Your task to perform on an android device: Search for vegetarian restaurants on Maps Image 0: 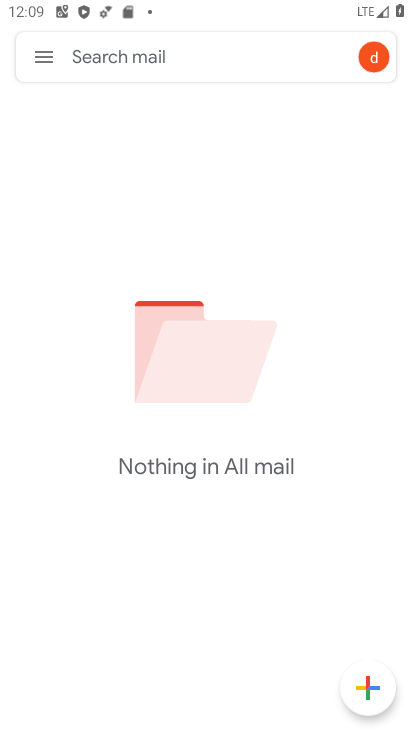
Step 0: press home button
Your task to perform on an android device: Search for vegetarian restaurants on Maps Image 1: 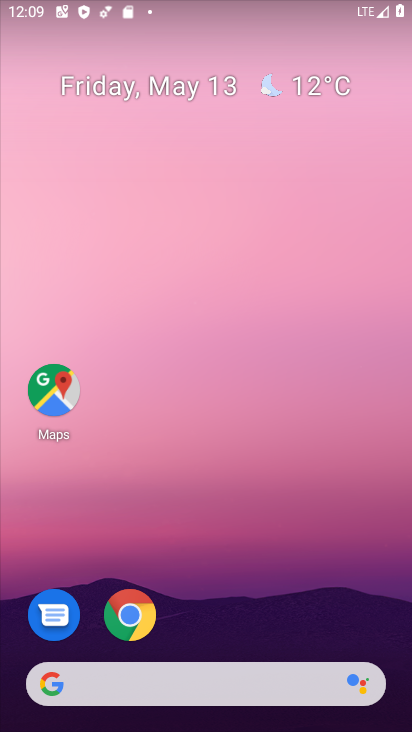
Step 1: click (78, 396)
Your task to perform on an android device: Search for vegetarian restaurants on Maps Image 2: 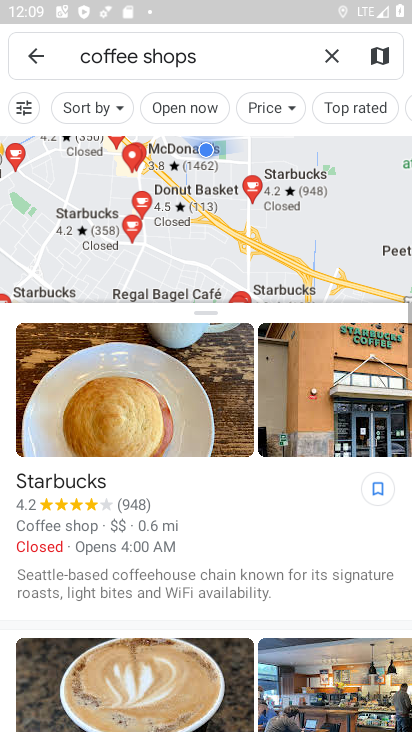
Step 2: click (325, 60)
Your task to perform on an android device: Search for vegetarian restaurants on Maps Image 3: 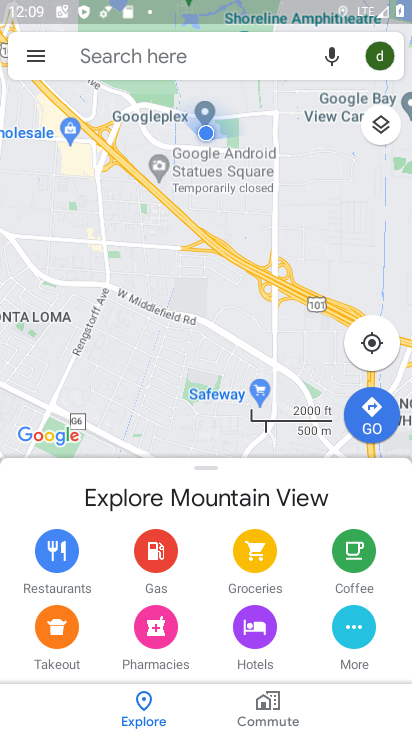
Step 3: click (118, 49)
Your task to perform on an android device: Search for vegetarian restaurants on Maps Image 4: 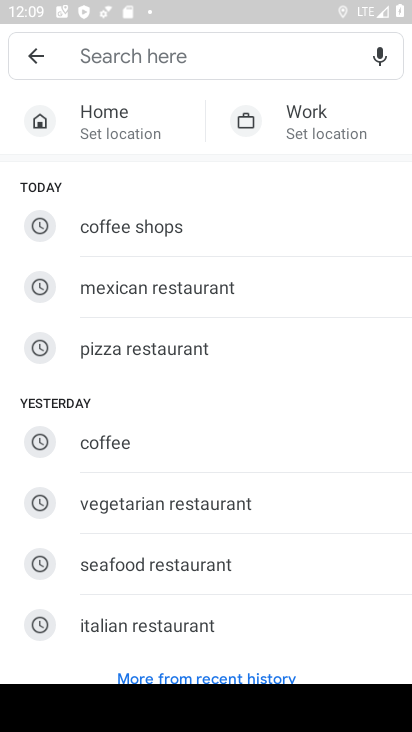
Step 4: type "vegetarian restaurants"
Your task to perform on an android device: Search for vegetarian restaurants on Maps Image 5: 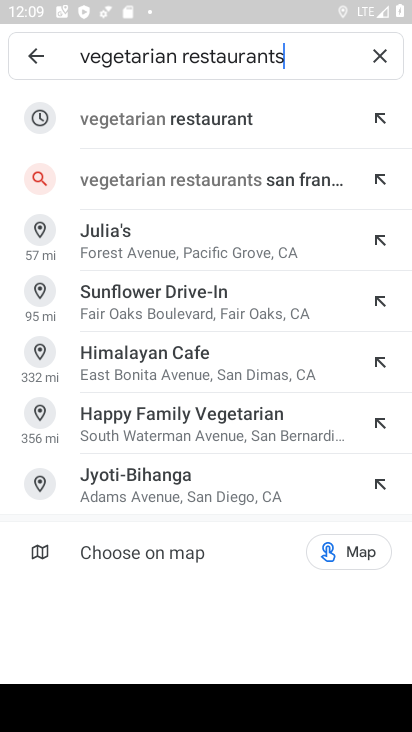
Step 5: click (198, 116)
Your task to perform on an android device: Search for vegetarian restaurants on Maps Image 6: 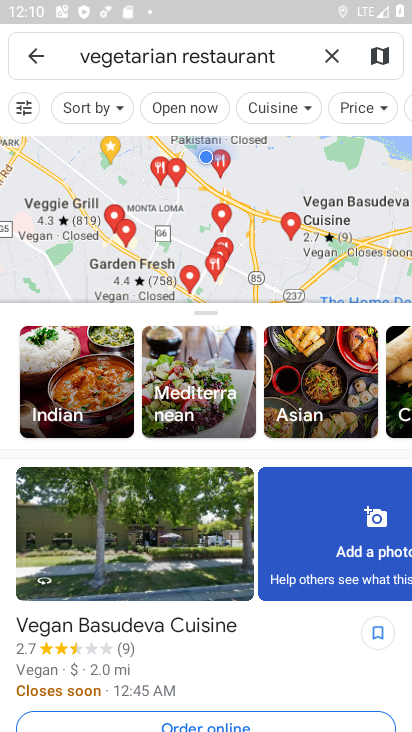
Step 6: task complete